Your task to perform on an android device: manage bookmarks in the chrome app Image 0: 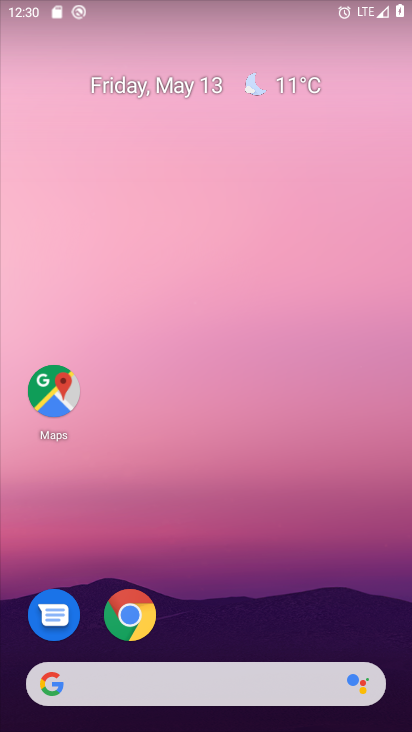
Step 0: click (126, 616)
Your task to perform on an android device: manage bookmarks in the chrome app Image 1: 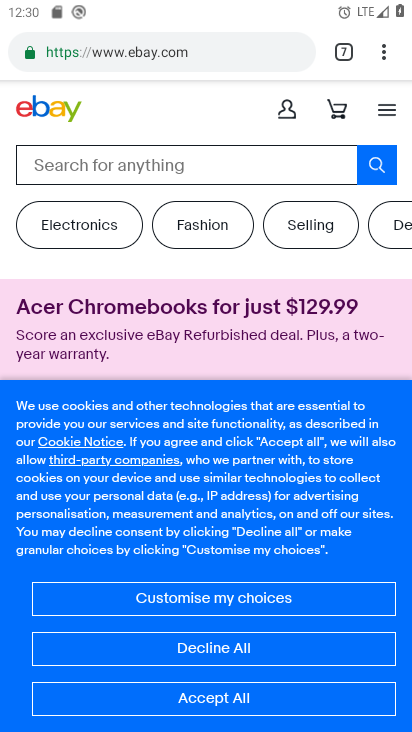
Step 1: click (383, 50)
Your task to perform on an android device: manage bookmarks in the chrome app Image 2: 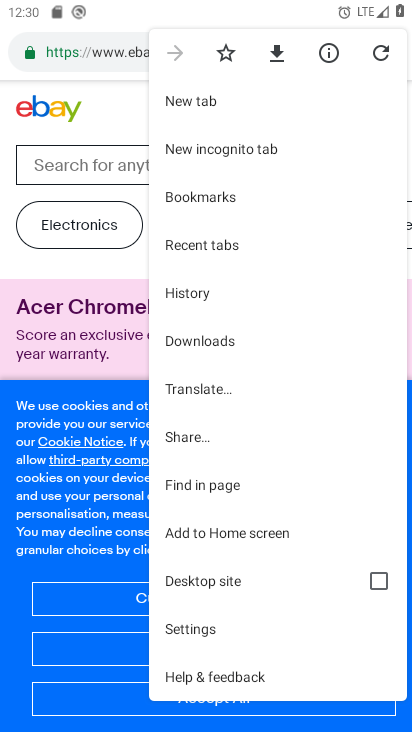
Step 2: click (250, 196)
Your task to perform on an android device: manage bookmarks in the chrome app Image 3: 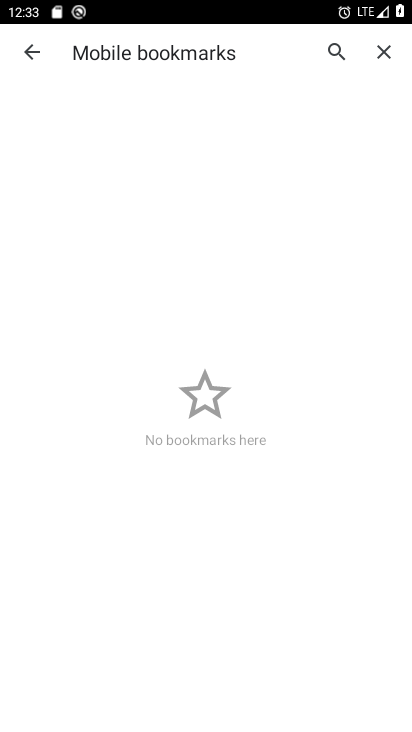
Step 3: task complete